Your task to perform on an android device: open app "Spotify: Music and Podcasts" (install if not already installed) Image 0: 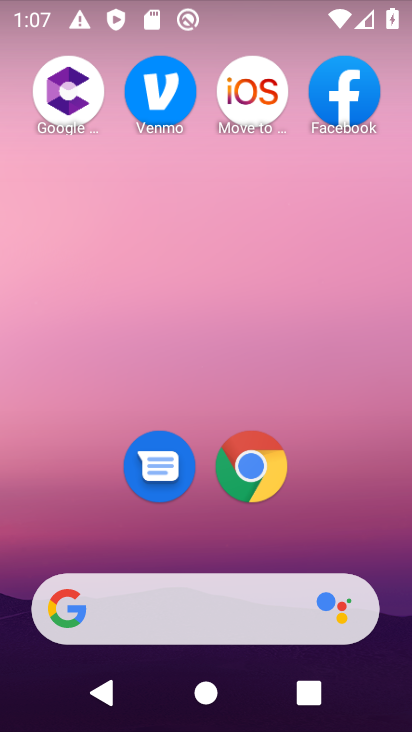
Step 0: drag from (145, 567) to (181, 62)
Your task to perform on an android device: open app "Spotify: Music and Podcasts" (install if not already installed) Image 1: 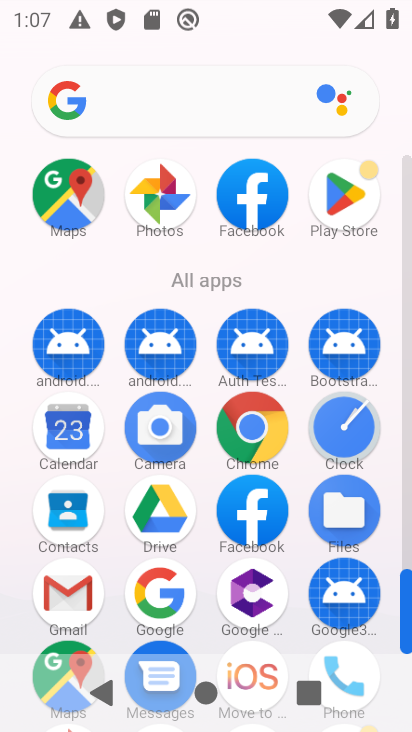
Step 1: click (324, 186)
Your task to perform on an android device: open app "Spotify: Music and Podcasts" (install if not already installed) Image 2: 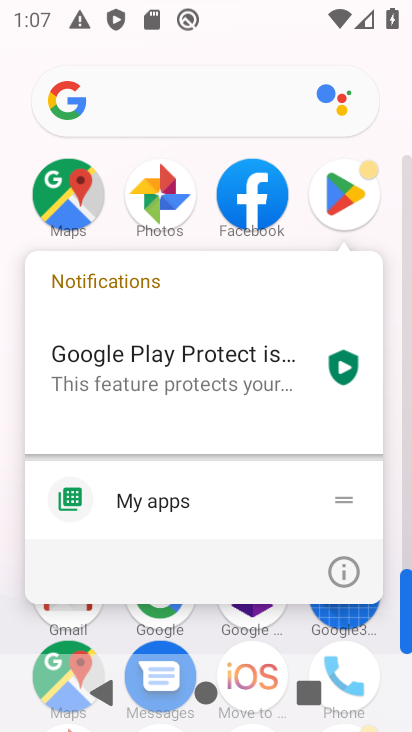
Step 2: click (333, 176)
Your task to perform on an android device: open app "Spotify: Music and Podcasts" (install if not already installed) Image 3: 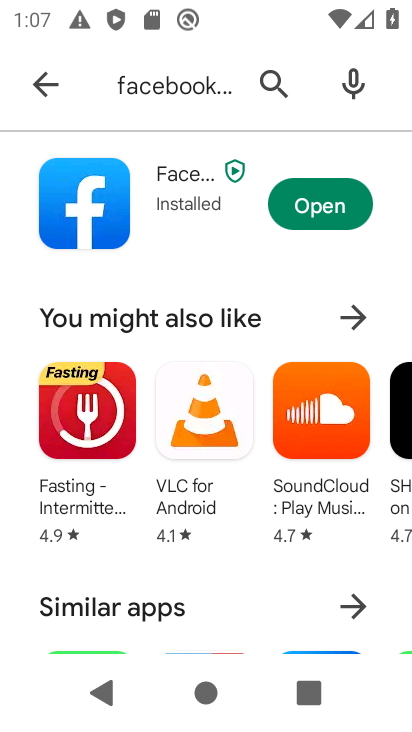
Step 3: click (42, 81)
Your task to perform on an android device: open app "Spotify: Music and Podcasts" (install if not already installed) Image 4: 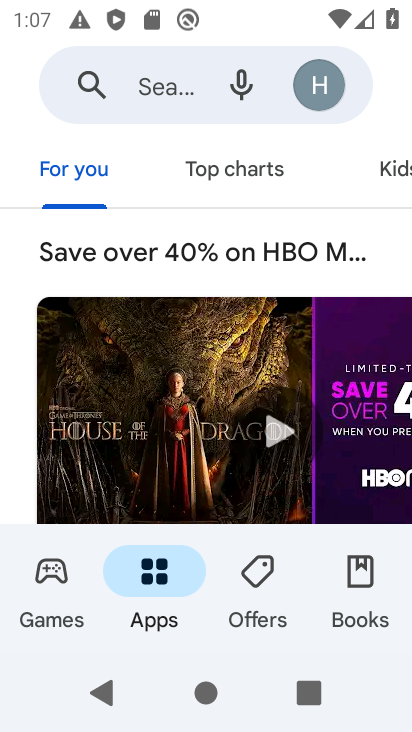
Step 4: click (144, 73)
Your task to perform on an android device: open app "Spotify: Music and Podcasts" (install if not already installed) Image 5: 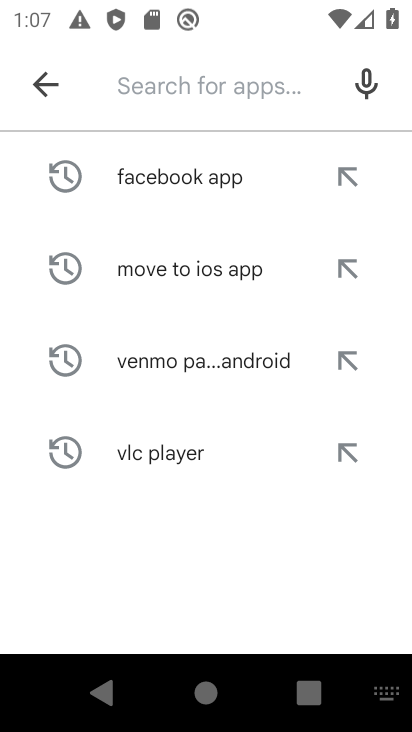
Step 5: type "Spotify "
Your task to perform on an android device: open app "Spotify: Music and Podcasts" (install if not already installed) Image 6: 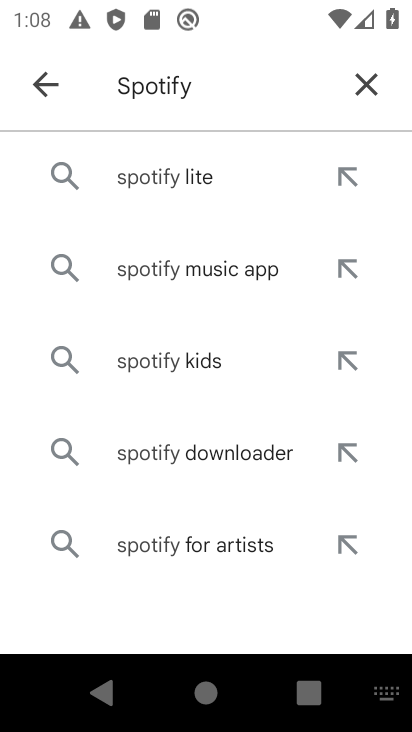
Step 6: click (172, 162)
Your task to perform on an android device: open app "Spotify: Music and Podcasts" (install if not already installed) Image 7: 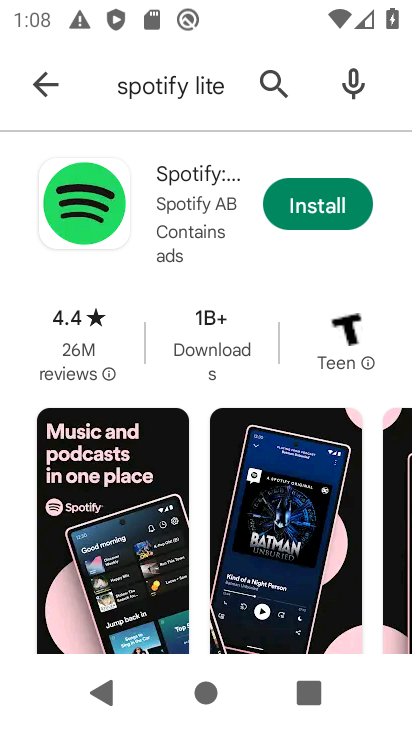
Step 7: click (293, 218)
Your task to perform on an android device: open app "Spotify: Music and Podcasts" (install if not already installed) Image 8: 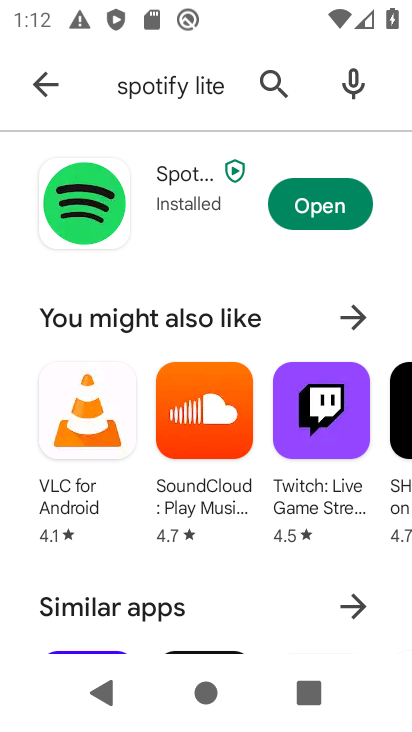
Step 8: task complete